Your task to perform on an android device: toggle javascript in the chrome app Image 0: 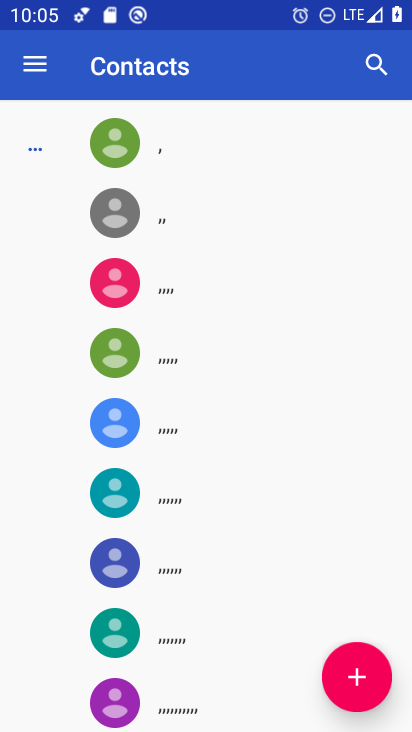
Step 0: press home button
Your task to perform on an android device: toggle javascript in the chrome app Image 1: 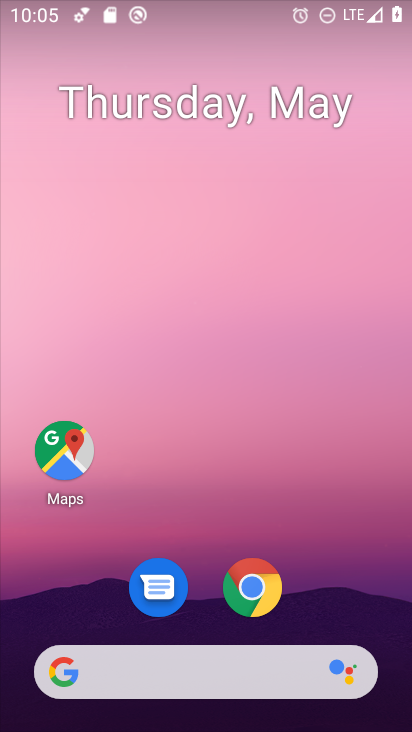
Step 1: click (259, 583)
Your task to perform on an android device: toggle javascript in the chrome app Image 2: 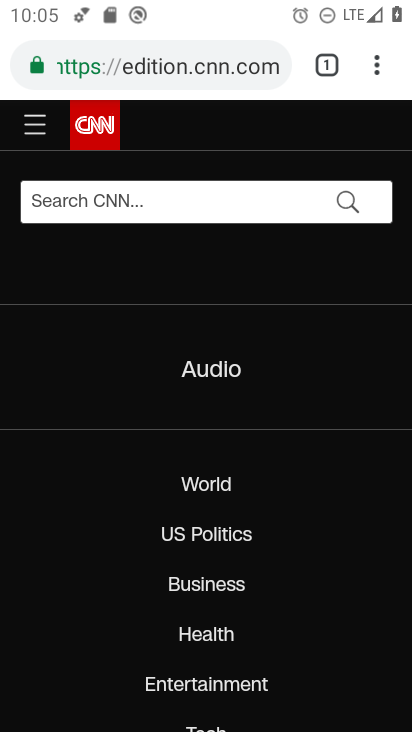
Step 2: click (376, 64)
Your task to perform on an android device: toggle javascript in the chrome app Image 3: 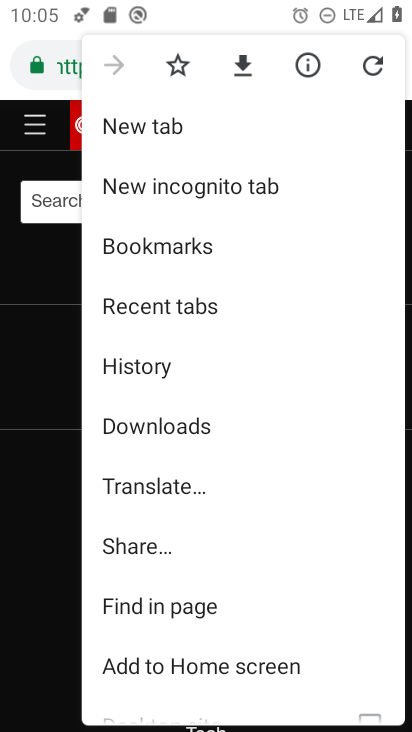
Step 3: drag from (246, 626) to (246, 271)
Your task to perform on an android device: toggle javascript in the chrome app Image 4: 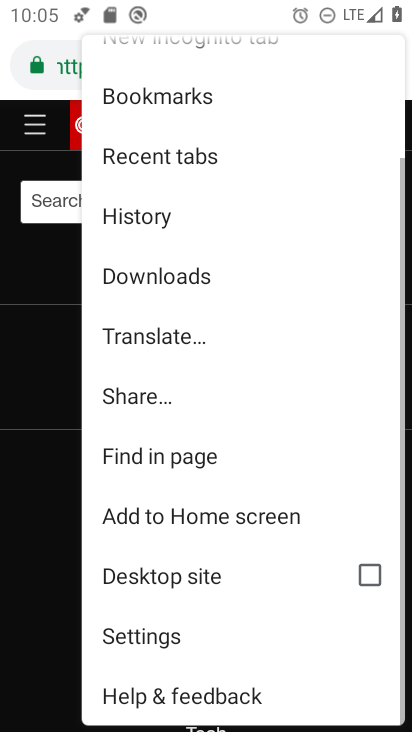
Step 4: click (164, 643)
Your task to perform on an android device: toggle javascript in the chrome app Image 5: 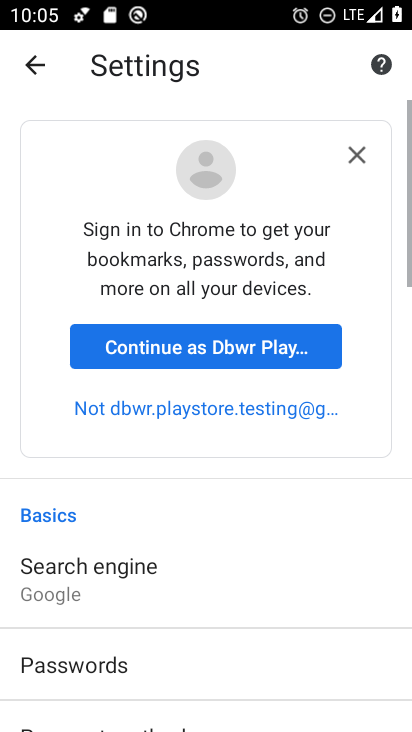
Step 5: drag from (185, 621) to (191, 154)
Your task to perform on an android device: toggle javascript in the chrome app Image 6: 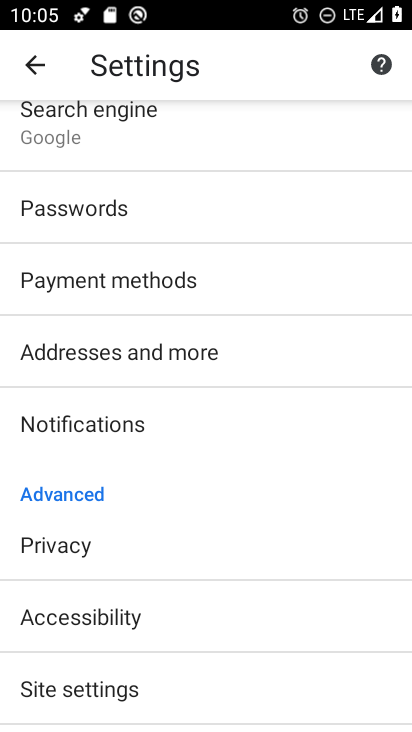
Step 6: drag from (179, 589) to (178, 368)
Your task to perform on an android device: toggle javascript in the chrome app Image 7: 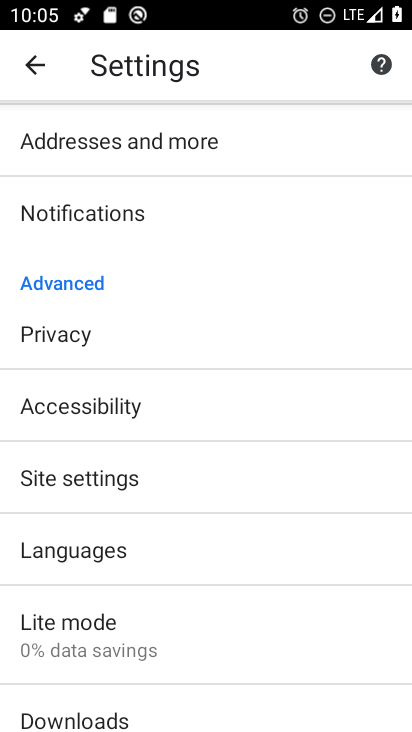
Step 7: click (98, 478)
Your task to perform on an android device: toggle javascript in the chrome app Image 8: 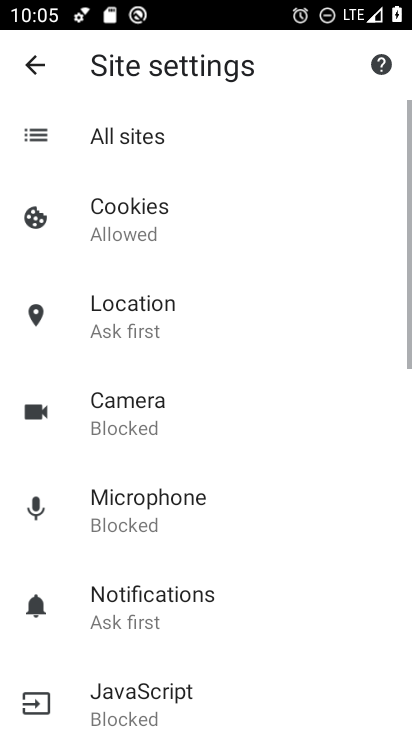
Step 8: drag from (285, 610) to (280, 320)
Your task to perform on an android device: toggle javascript in the chrome app Image 9: 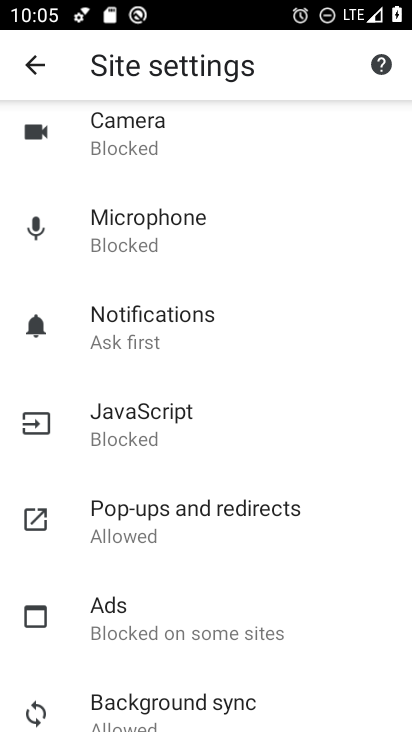
Step 9: click (121, 422)
Your task to perform on an android device: toggle javascript in the chrome app Image 10: 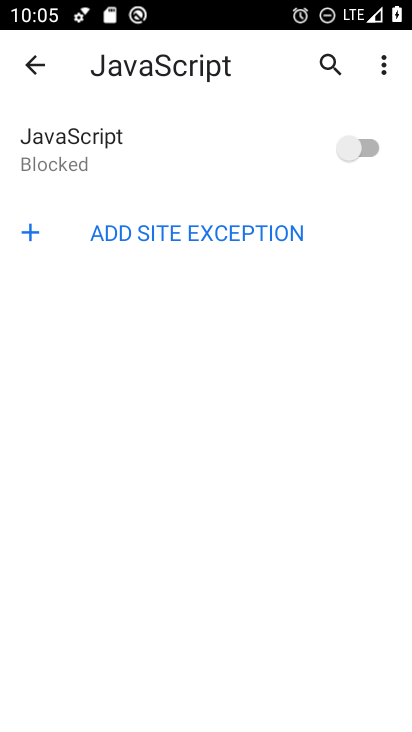
Step 10: click (347, 157)
Your task to perform on an android device: toggle javascript in the chrome app Image 11: 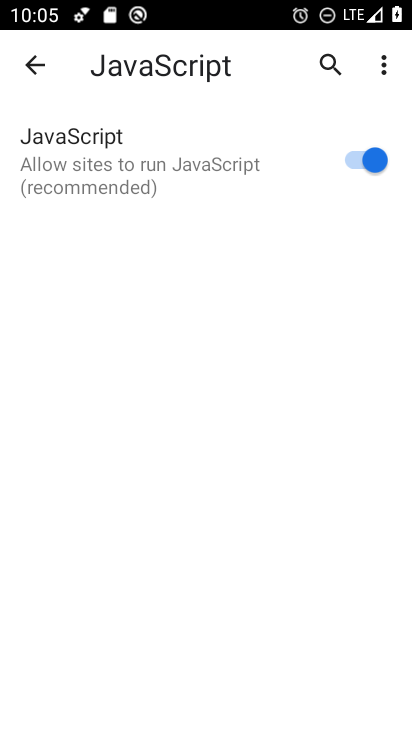
Step 11: task complete